Your task to perform on an android device: open app "Chime – Mobile Banking" (install if not already installed), go to login, and select forgot password Image 0: 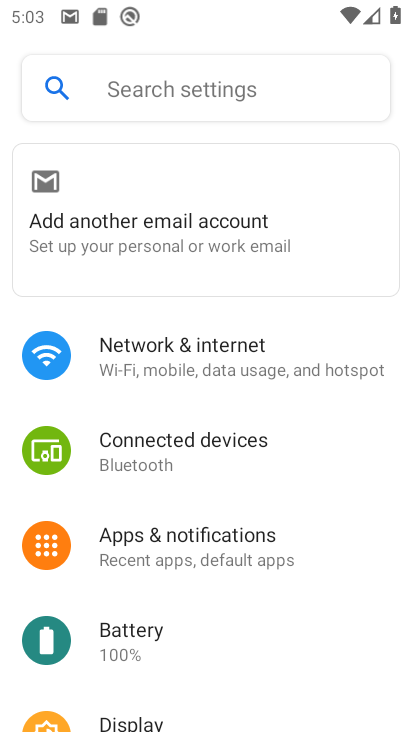
Step 0: press home button
Your task to perform on an android device: open app "Chime – Mobile Banking" (install if not already installed), go to login, and select forgot password Image 1: 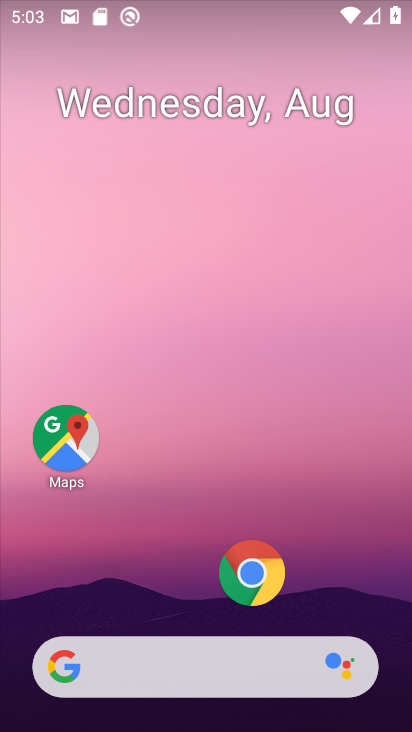
Step 1: drag from (185, 581) to (134, 7)
Your task to perform on an android device: open app "Chime – Mobile Banking" (install if not already installed), go to login, and select forgot password Image 2: 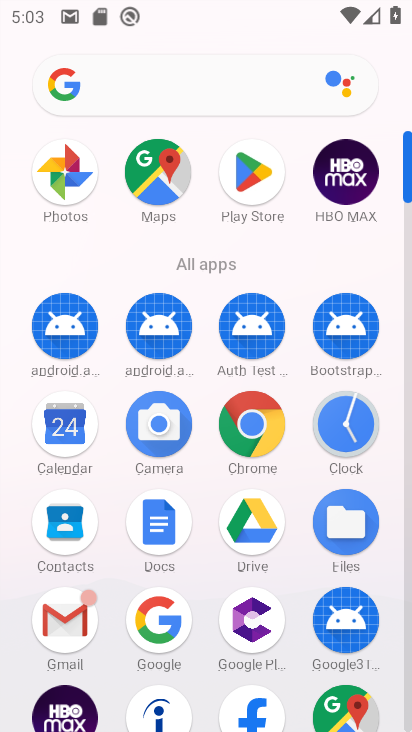
Step 2: click (252, 147)
Your task to perform on an android device: open app "Chime – Mobile Banking" (install if not already installed), go to login, and select forgot password Image 3: 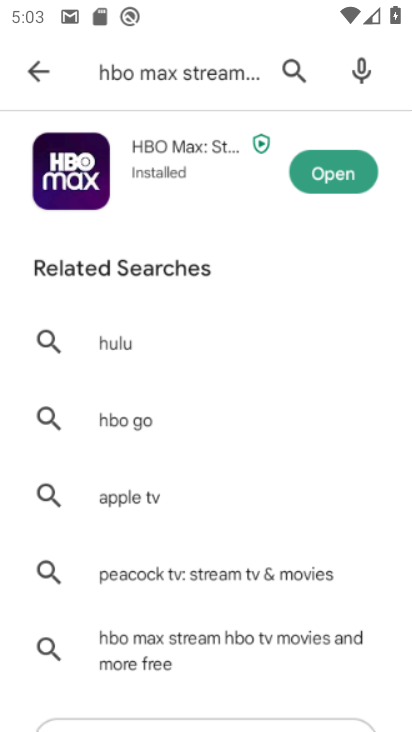
Step 3: drag from (190, 657) to (233, 153)
Your task to perform on an android device: open app "Chime – Mobile Banking" (install if not already installed), go to login, and select forgot password Image 4: 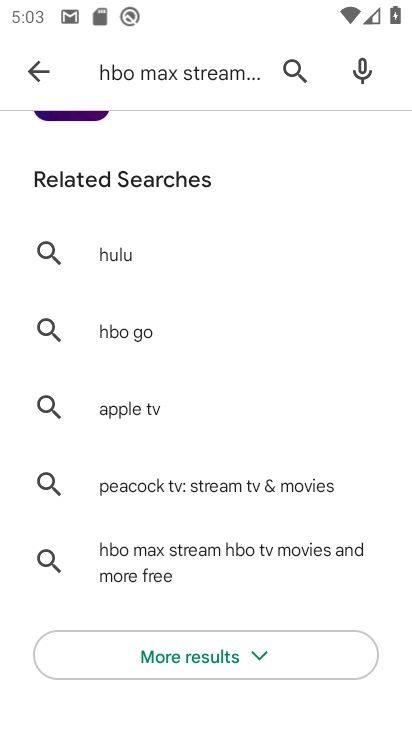
Step 4: click (116, 546)
Your task to perform on an android device: open app "Chime – Mobile Banking" (install if not already installed), go to login, and select forgot password Image 5: 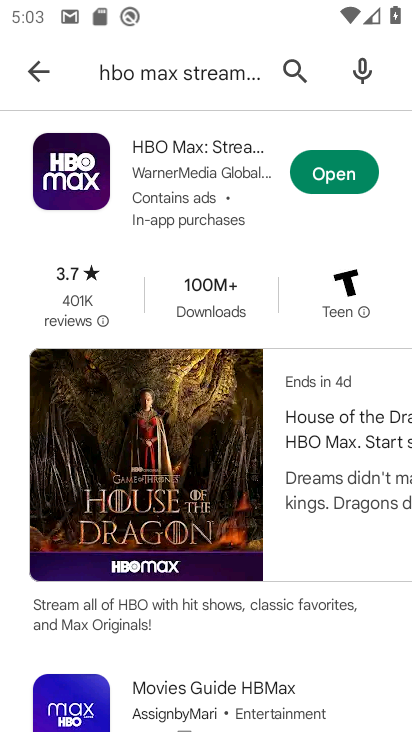
Step 5: press back button
Your task to perform on an android device: open app "Chime – Mobile Banking" (install if not already installed), go to login, and select forgot password Image 6: 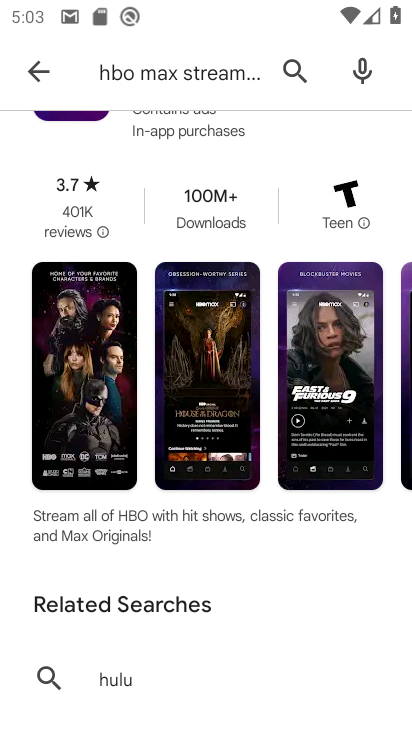
Step 6: click (35, 71)
Your task to perform on an android device: open app "Chime – Mobile Banking" (install if not already installed), go to login, and select forgot password Image 7: 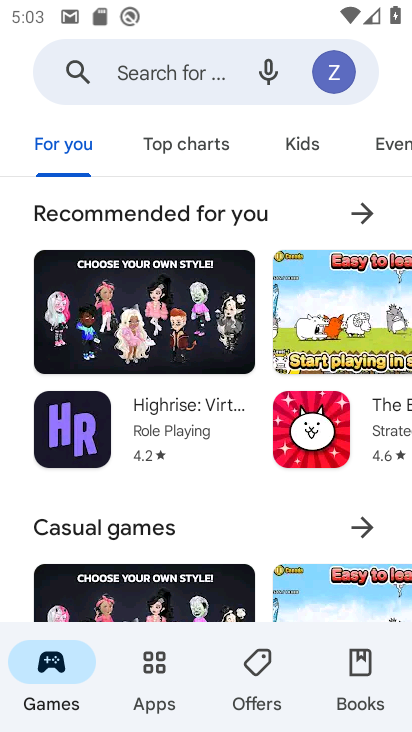
Step 7: click (143, 70)
Your task to perform on an android device: open app "Chime – Mobile Banking" (install if not already installed), go to login, and select forgot password Image 8: 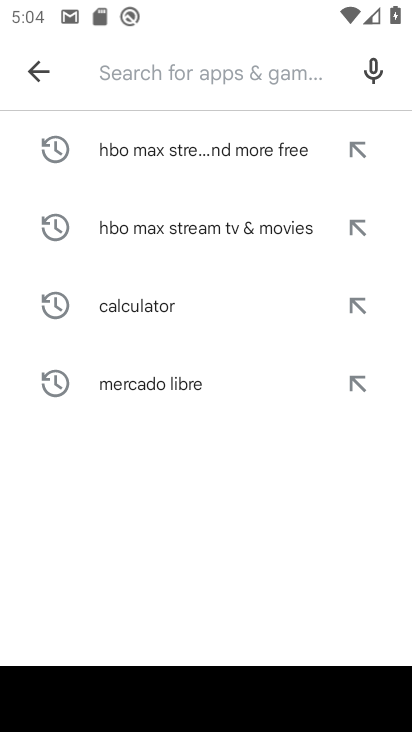
Step 8: type "Chime – Mobile Banking"
Your task to perform on an android device: open app "Chime – Mobile Banking" (install if not already installed), go to login, and select forgot password Image 9: 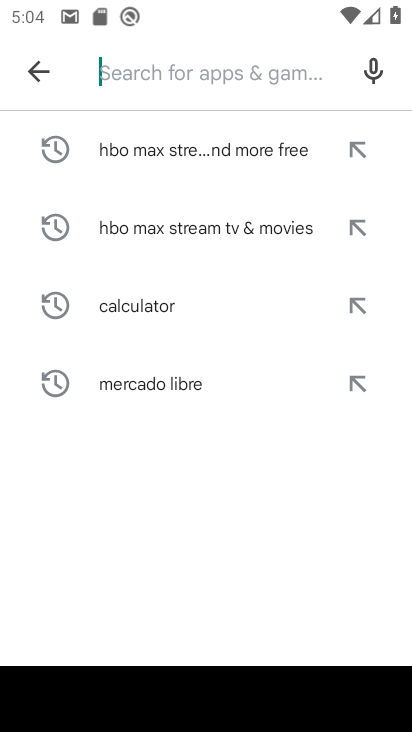
Step 9: click (159, 76)
Your task to perform on an android device: open app "Chime – Mobile Banking" (install if not already installed), go to login, and select forgot password Image 10: 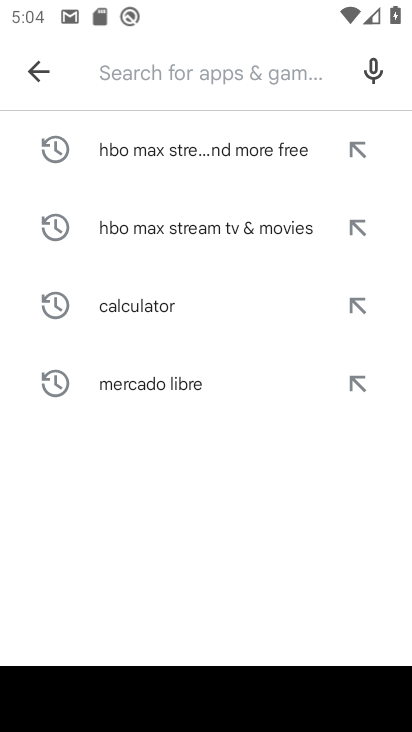
Step 10: type "Chime – Mobile Banking"
Your task to perform on an android device: open app "Chime – Mobile Banking" (install if not already installed), go to login, and select forgot password Image 11: 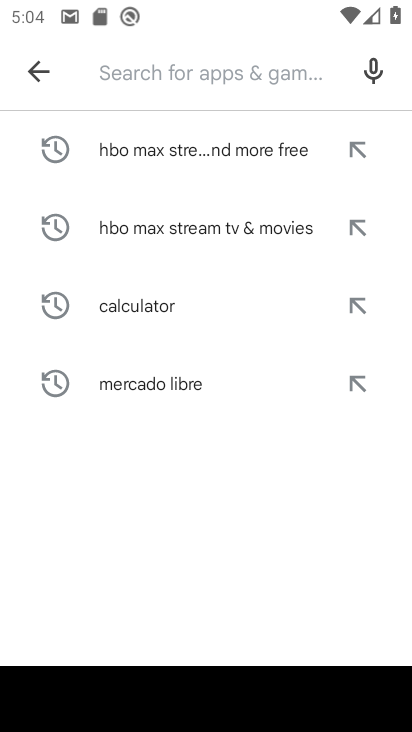
Step 11: task complete